Your task to perform on an android device: change the upload size in google photos Image 0: 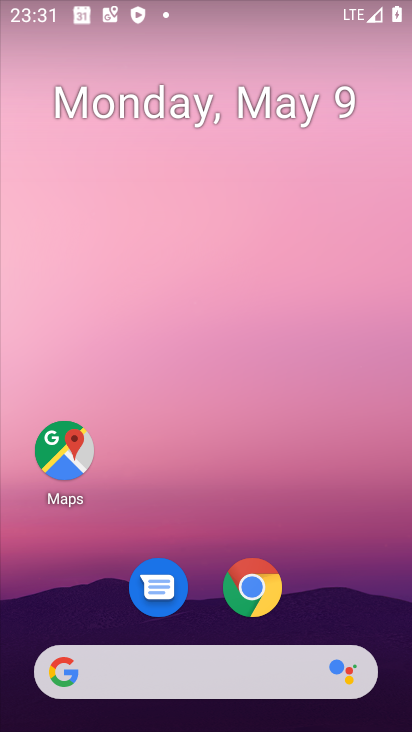
Step 0: drag from (212, 619) to (214, 172)
Your task to perform on an android device: change the upload size in google photos Image 1: 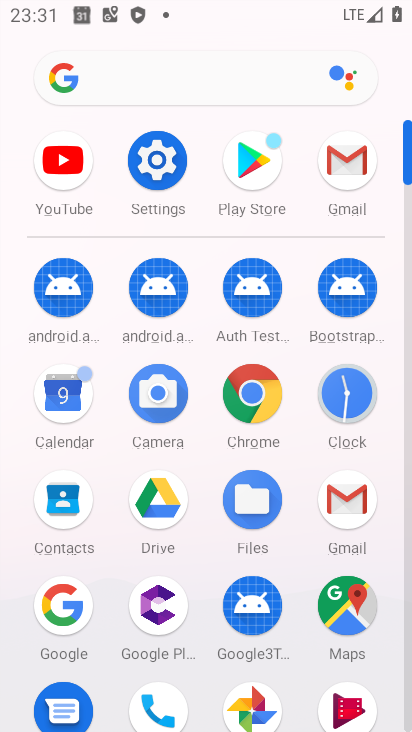
Step 1: click (252, 692)
Your task to perform on an android device: change the upload size in google photos Image 2: 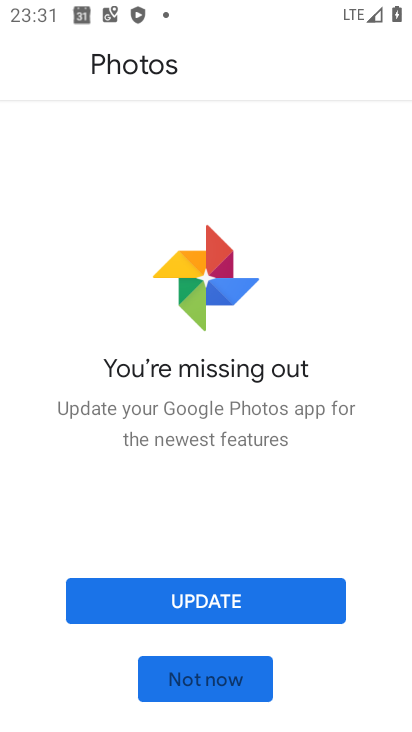
Step 2: click (252, 692)
Your task to perform on an android device: change the upload size in google photos Image 3: 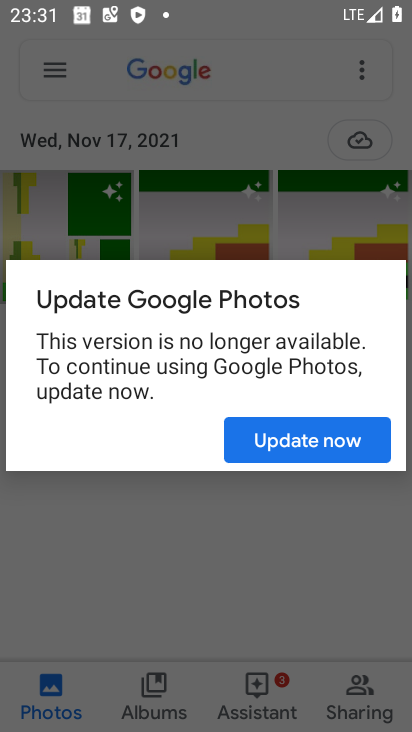
Step 3: click (291, 430)
Your task to perform on an android device: change the upload size in google photos Image 4: 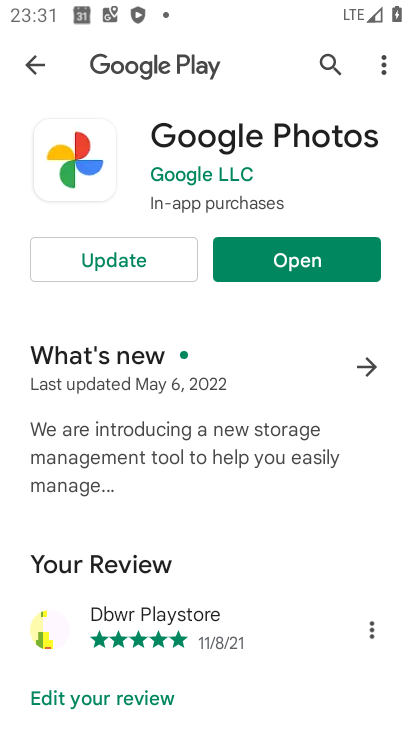
Step 4: click (260, 266)
Your task to perform on an android device: change the upload size in google photos Image 5: 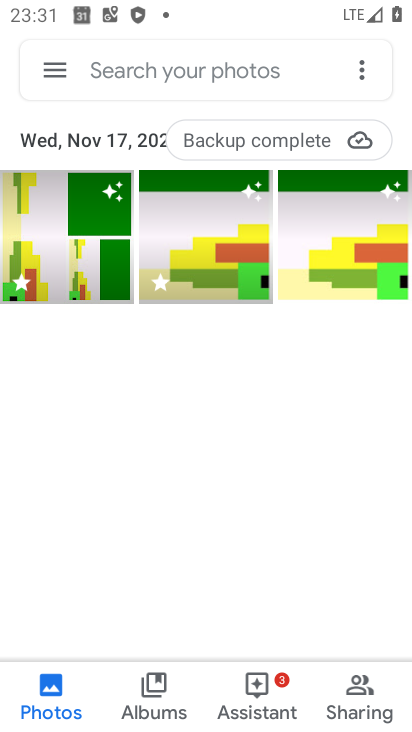
Step 5: click (61, 81)
Your task to perform on an android device: change the upload size in google photos Image 6: 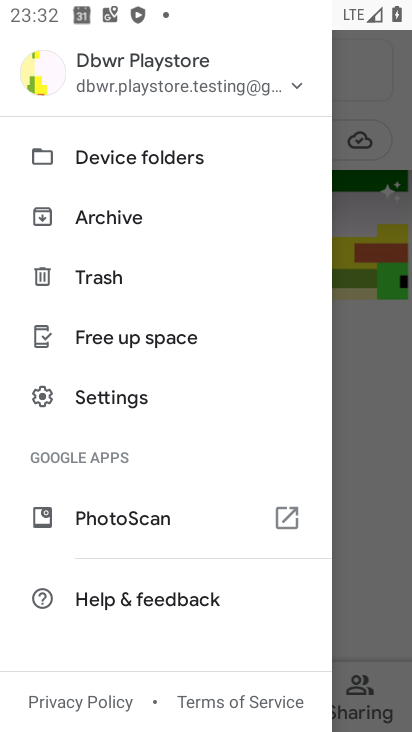
Step 6: click (130, 418)
Your task to perform on an android device: change the upload size in google photos Image 7: 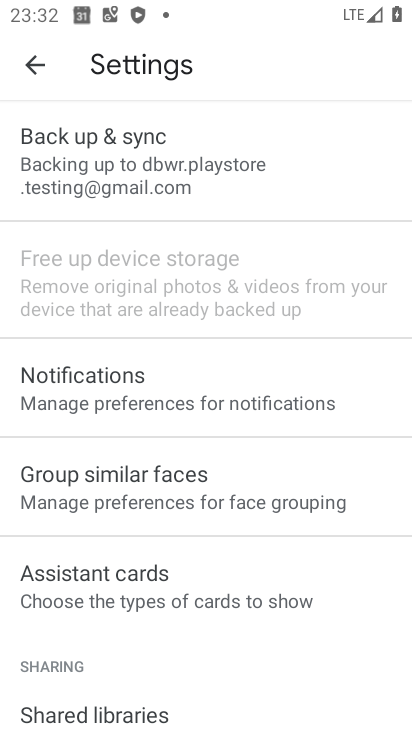
Step 7: click (105, 131)
Your task to perform on an android device: change the upload size in google photos Image 8: 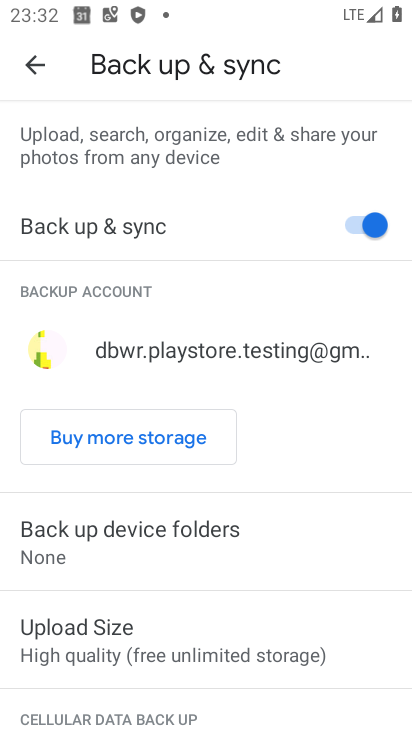
Step 8: click (187, 615)
Your task to perform on an android device: change the upload size in google photos Image 9: 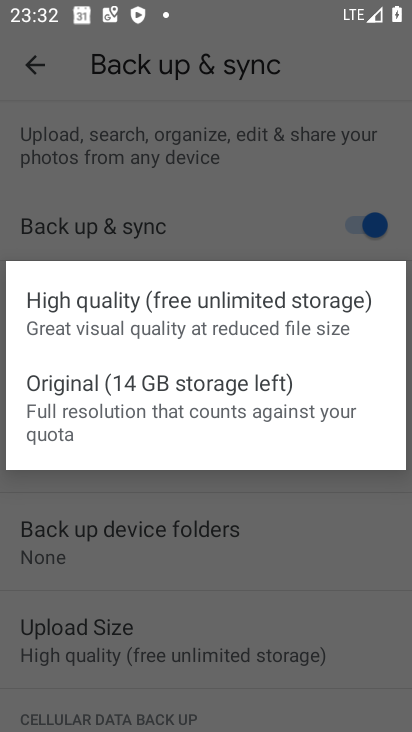
Step 9: click (177, 411)
Your task to perform on an android device: change the upload size in google photos Image 10: 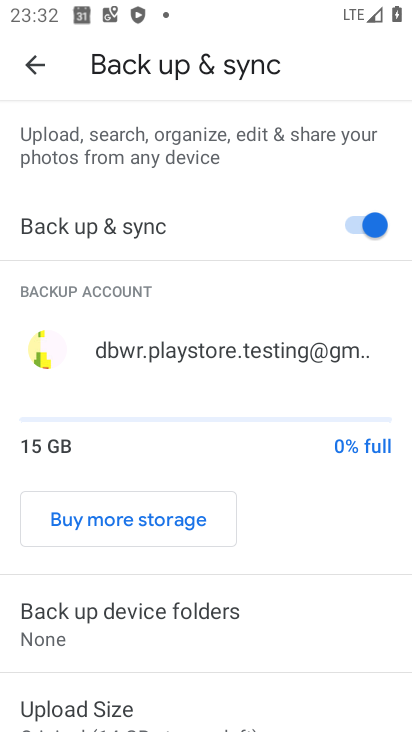
Step 10: task complete